Your task to perform on an android device: What is the news today? Image 0: 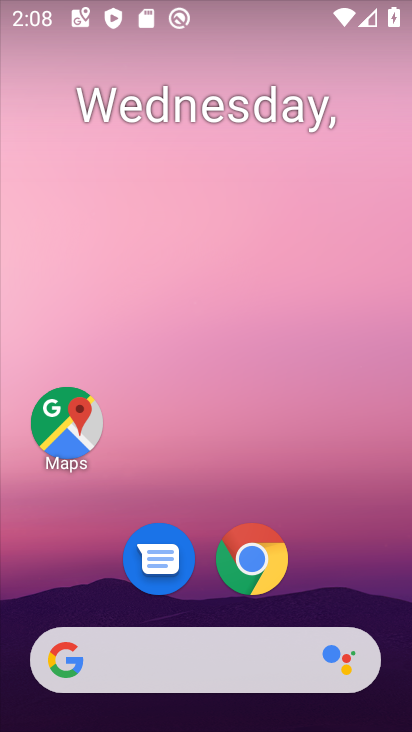
Step 0: press home button
Your task to perform on an android device: What is the news today? Image 1: 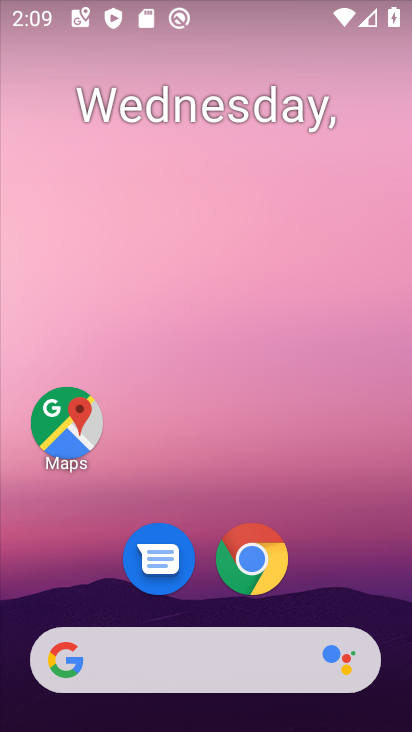
Step 1: click (255, 574)
Your task to perform on an android device: What is the news today? Image 2: 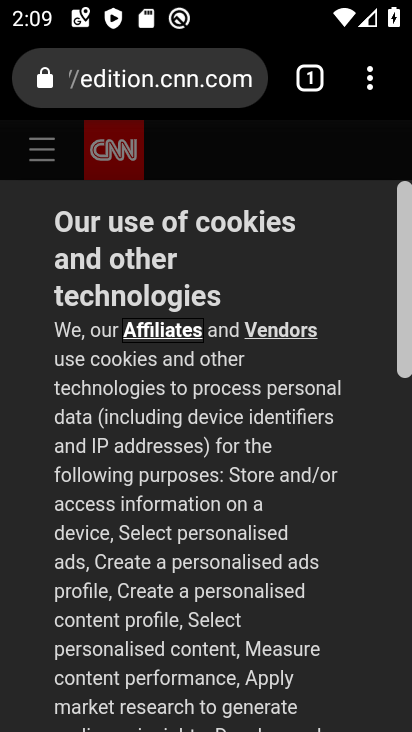
Step 2: click (168, 71)
Your task to perform on an android device: What is the news today? Image 3: 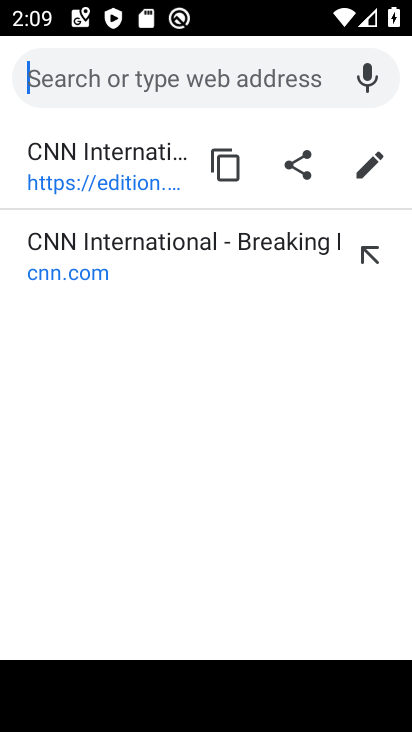
Step 3: type "What is the news today?"
Your task to perform on an android device: What is the news today? Image 4: 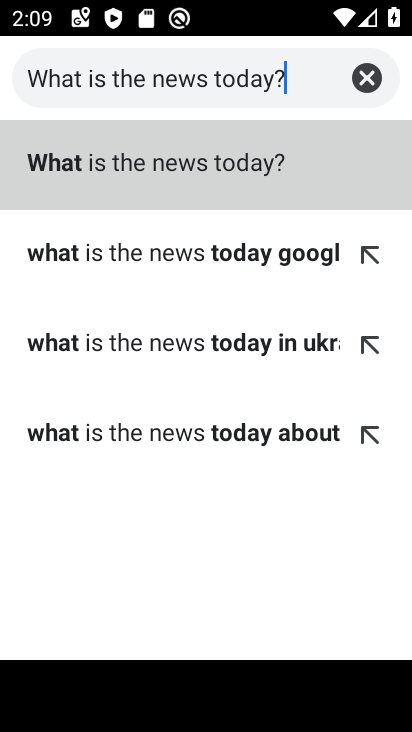
Step 4: click (252, 177)
Your task to perform on an android device: What is the news today? Image 5: 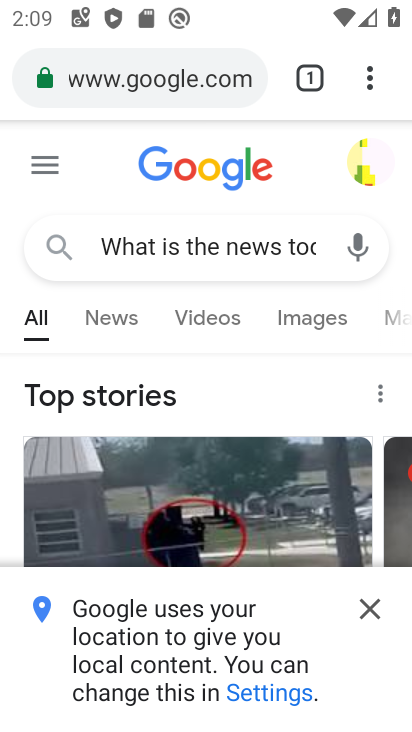
Step 5: task complete